Your task to perform on an android device: Go to ESPN.com Image 0: 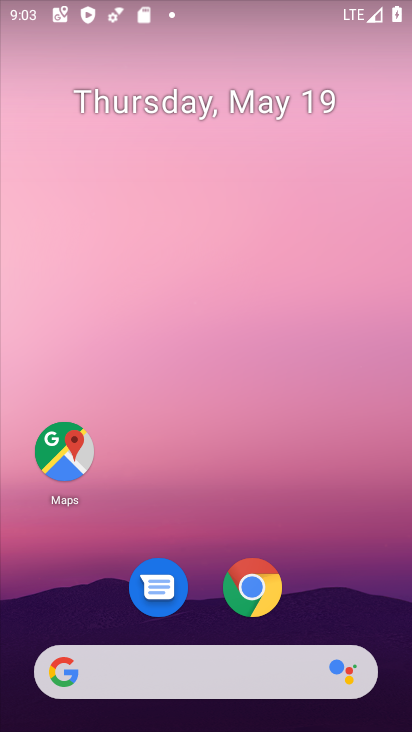
Step 0: drag from (371, 548) to (257, 12)
Your task to perform on an android device: Go to ESPN.com Image 1: 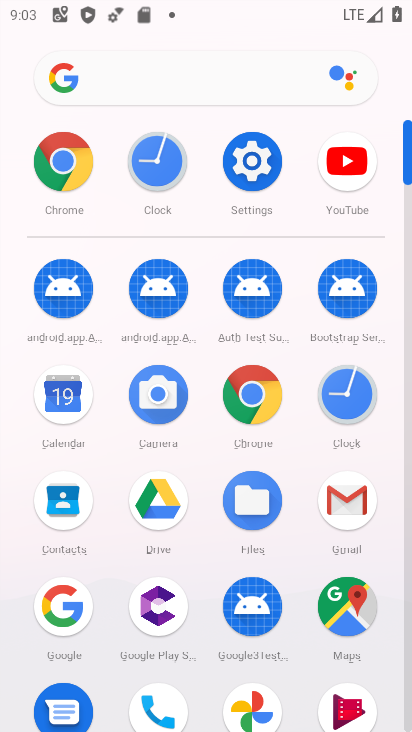
Step 1: drag from (20, 591) to (14, 267)
Your task to perform on an android device: Go to ESPN.com Image 2: 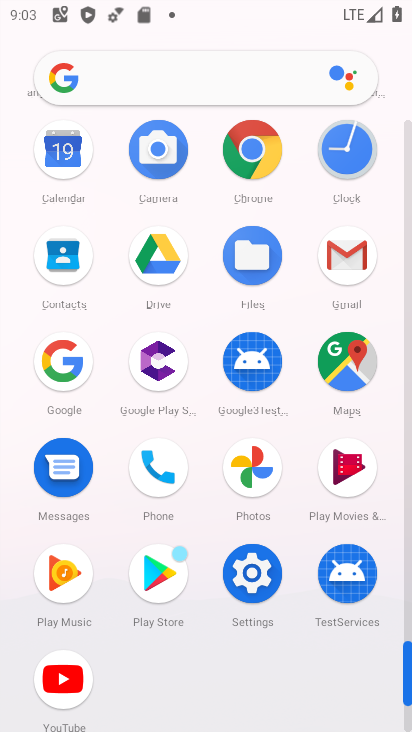
Step 2: click (247, 144)
Your task to perform on an android device: Go to ESPN.com Image 3: 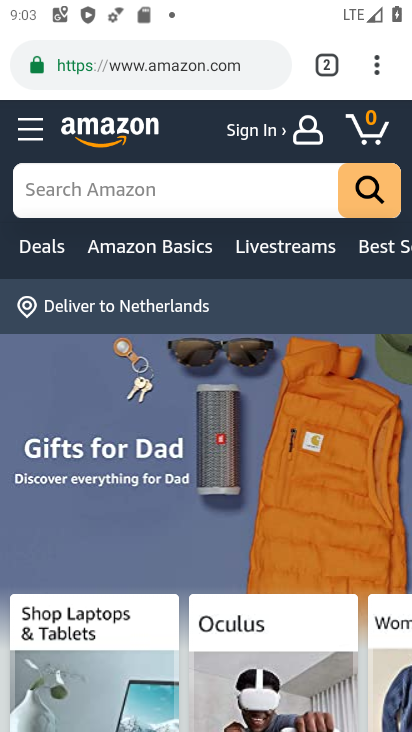
Step 3: click (212, 54)
Your task to perform on an android device: Go to ESPN.com Image 4: 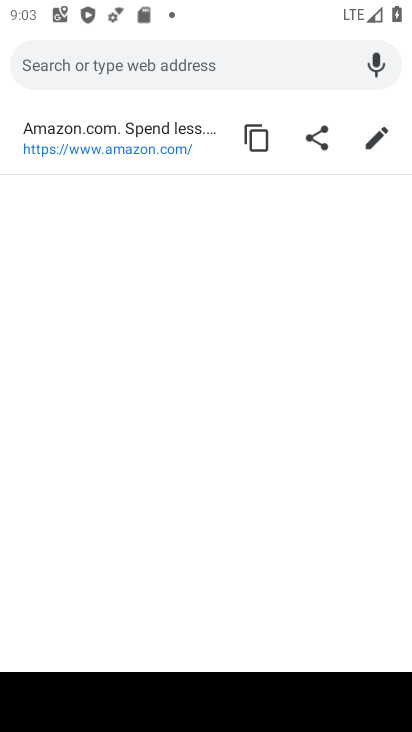
Step 4: type "ESPN.com"
Your task to perform on an android device: Go to ESPN.com Image 5: 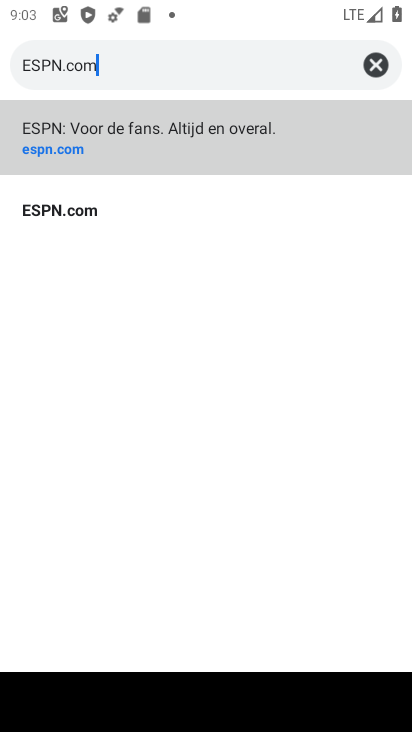
Step 5: type ""
Your task to perform on an android device: Go to ESPN.com Image 6: 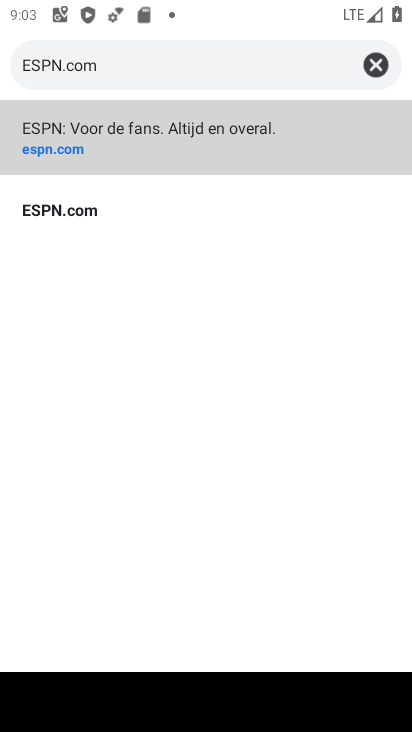
Step 6: click (171, 135)
Your task to perform on an android device: Go to ESPN.com Image 7: 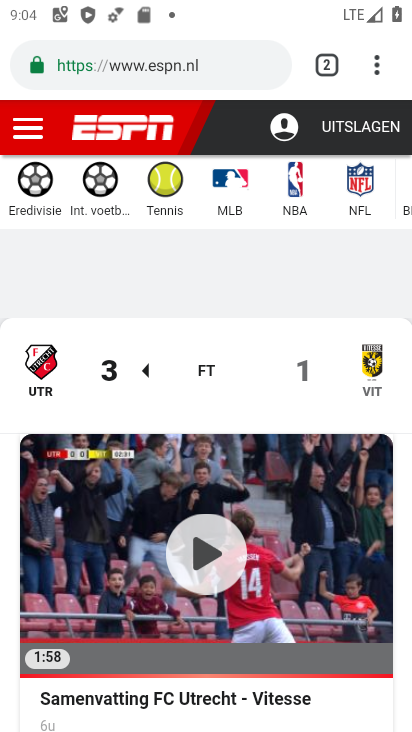
Step 7: task complete